Your task to perform on an android device: Open internet settings Image 0: 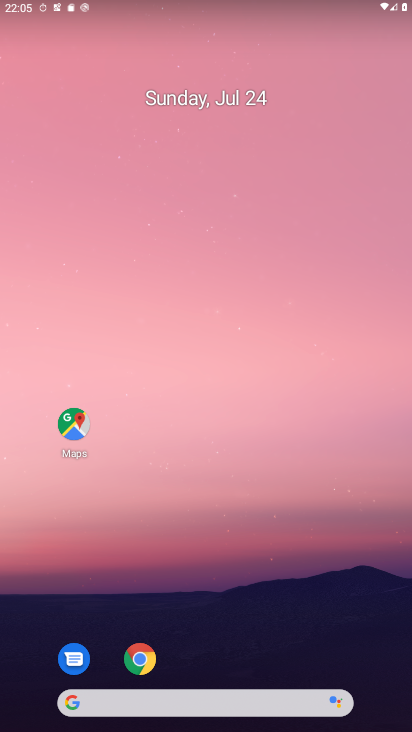
Step 0: drag from (216, 730) to (185, 112)
Your task to perform on an android device: Open internet settings Image 1: 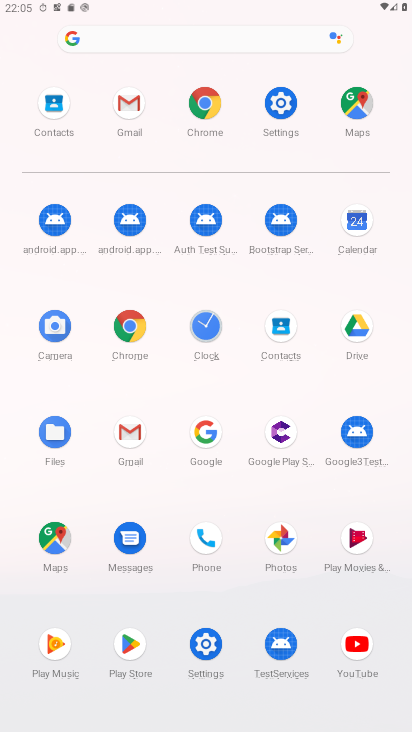
Step 1: click (284, 102)
Your task to perform on an android device: Open internet settings Image 2: 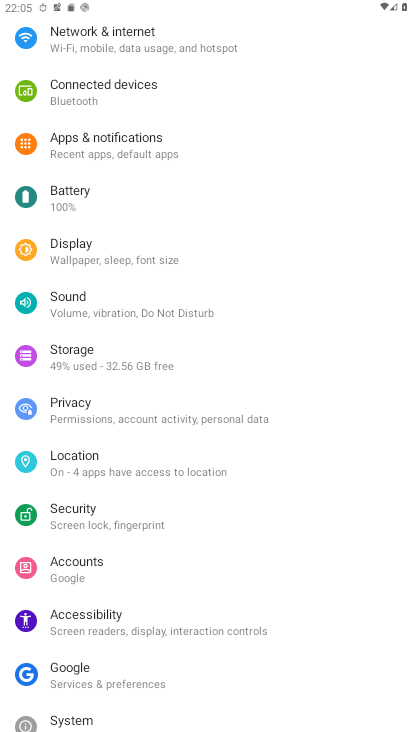
Step 2: drag from (167, 84) to (187, 542)
Your task to perform on an android device: Open internet settings Image 3: 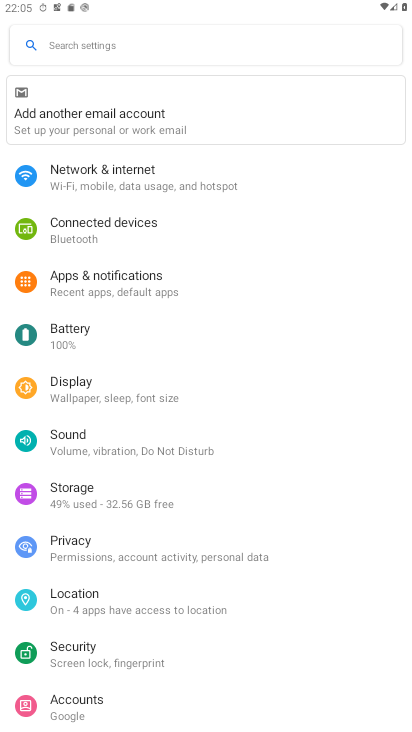
Step 3: click (98, 170)
Your task to perform on an android device: Open internet settings Image 4: 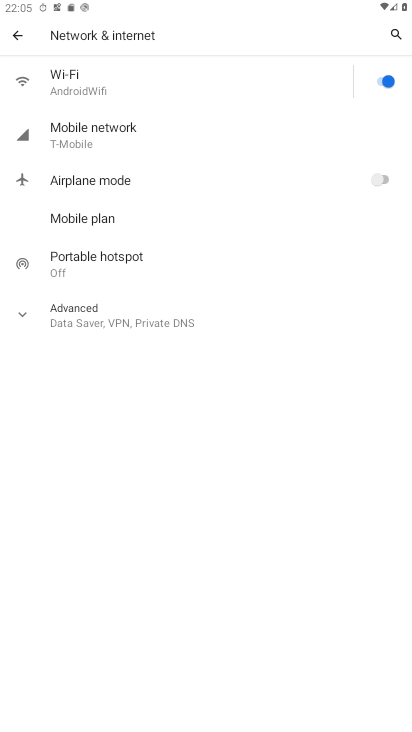
Step 4: task complete